Your task to perform on an android device: manage bookmarks in the chrome app Image 0: 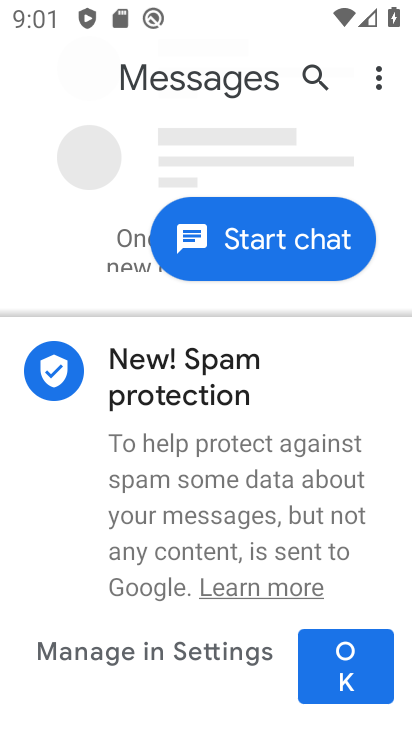
Step 0: press home button
Your task to perform on an android device: manage bookmarks in the chrome app Image 1: 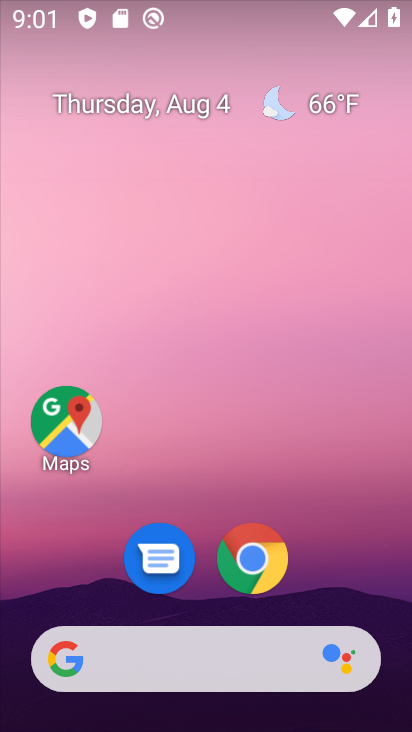
Step 1: drag from (316, 498) to (259, 56)
Your task to perform on an android device: manage bookmarks in the chrome app Image 2: 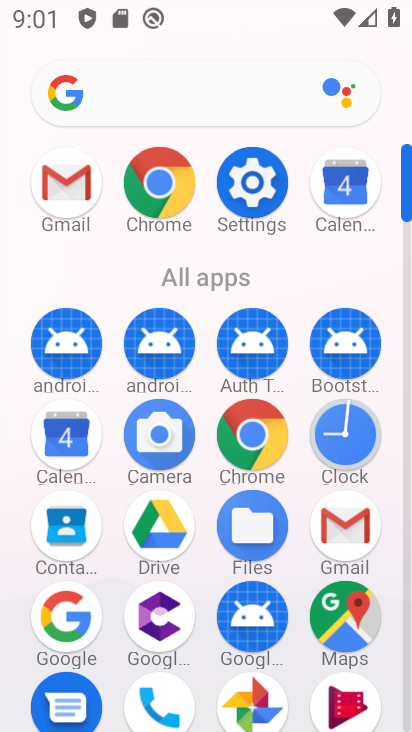
Step 2: click (261, 436)
Your task to perform on an android device: manage bookmarks in the chrome app Image 3: 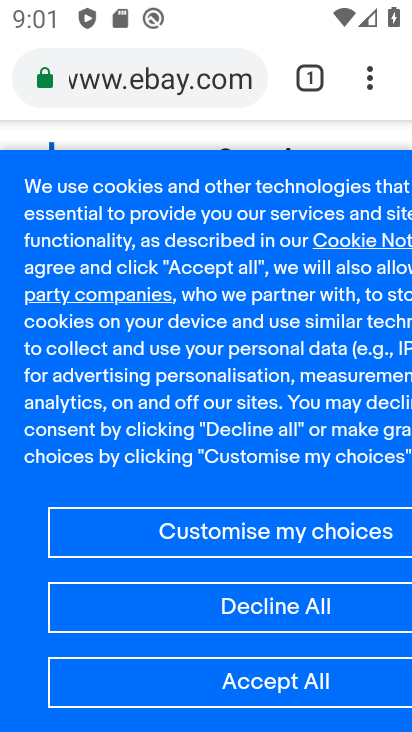
Step 3: drag from (374, 79) to (164, 299)
Your task to perform on an android device: manage bookmarks in the chrome app Image 4: 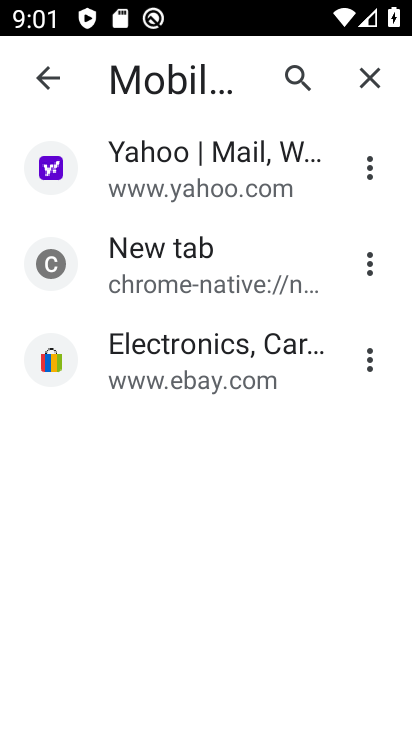
Step 4: click (376, 166)
Your task to perform on an android device: manage bookmarks in the chrome app Image 5: 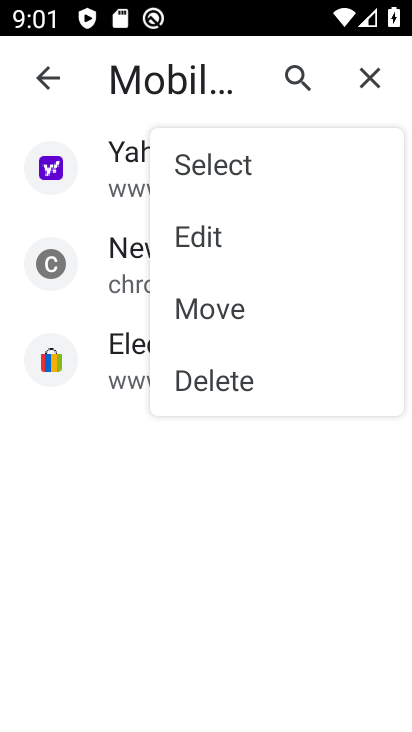
Step 5: click (183, 240)
Your task to perform on an android device: manage bookmarks in the chrome app Image 6: 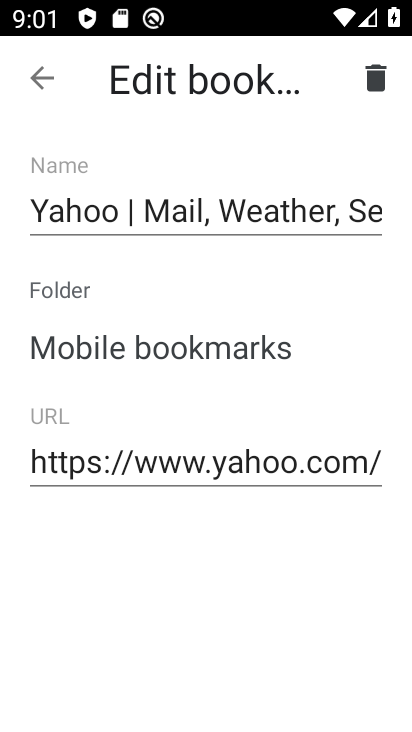
Step 6: click (322, 204)
Your task to perform on an android device: manage bookmarks in the chrome app Image 7: 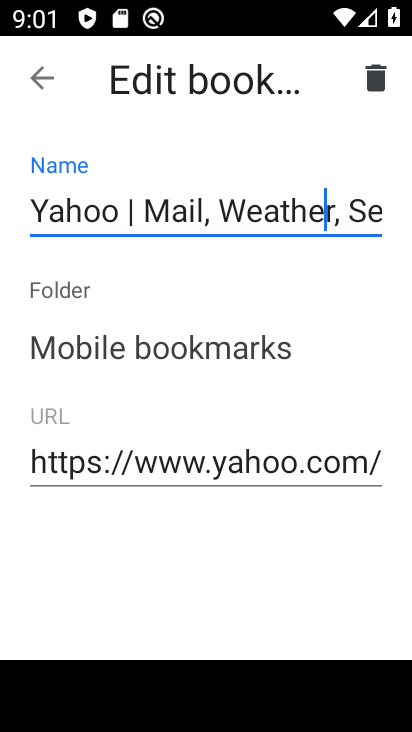
Step 7: type "h"
Your task to perform on an android device: manage bookmarks in the chrome app Image 8: 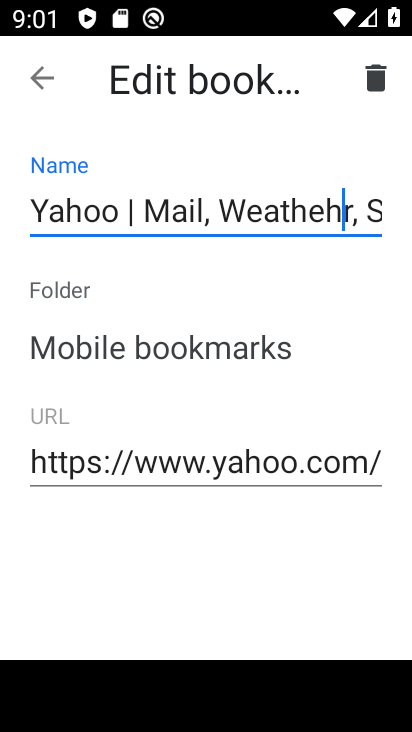
Step 8: type ""
Your task to perform on an android device: manage bookmarks in the chrome app Image 9: 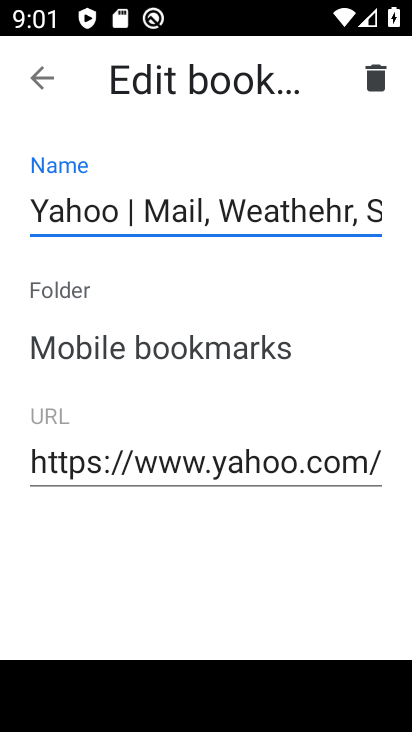
Step 9: click (50, 69)
Your task to perform on an android device: manage bookmarks in the chrome app Image 10: 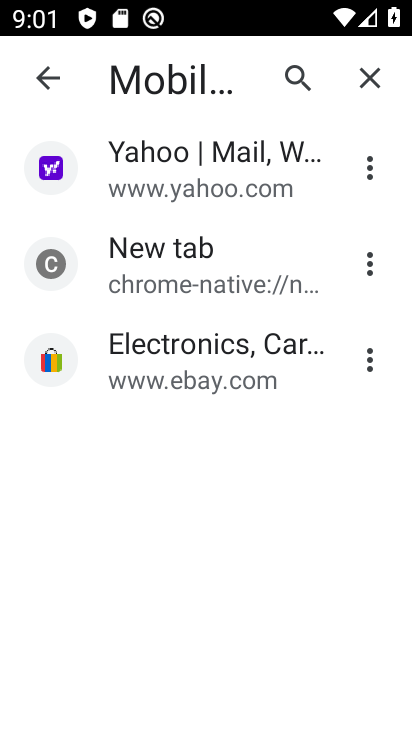
Step 10: task complete